Your task to perform on an android device: When is my next appointment? Image 0: 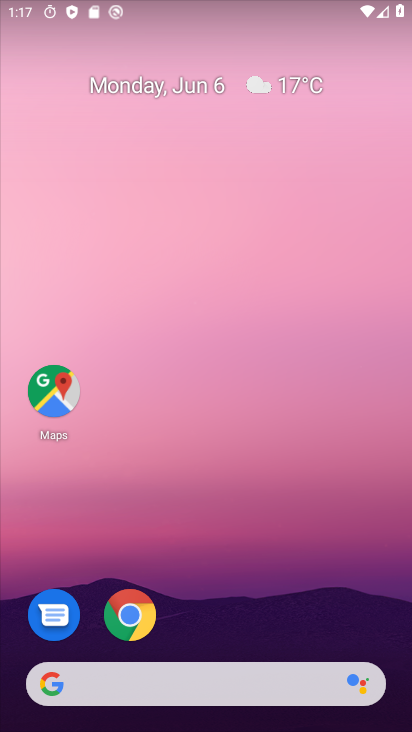
Step 0: click (203, 149)
Your task to perform on an android device: When is my next appointment? Image 1: 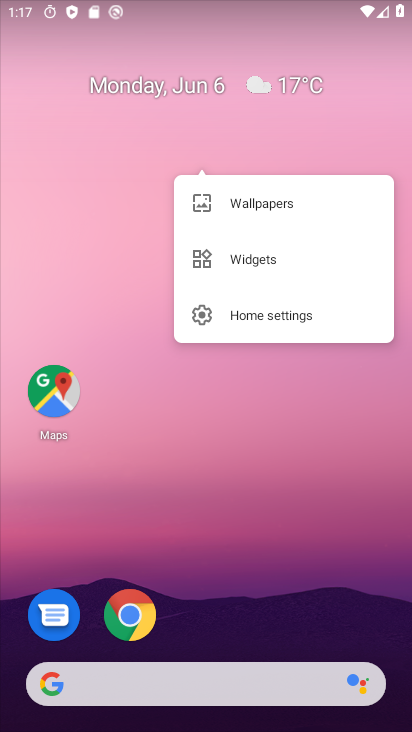
Step 1: drag from (199, 634) to (237, 92)
Your task to perform on an android device: When is my next appointment? Image 2: 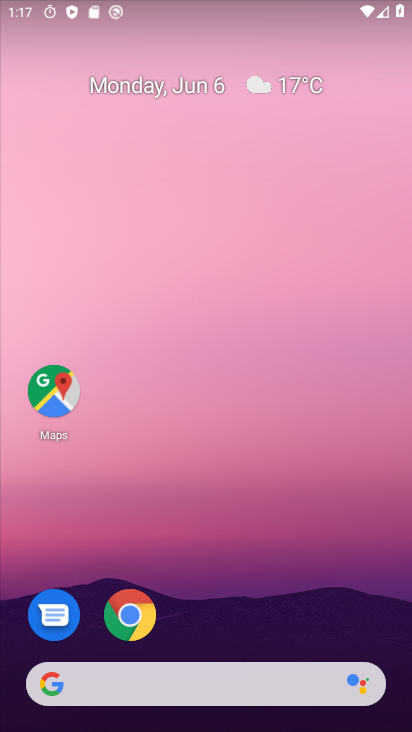
Step 2: drag from (204, 609) to (57, 8)
Your task to perform on an android device: When is my next appointment? Image 3: 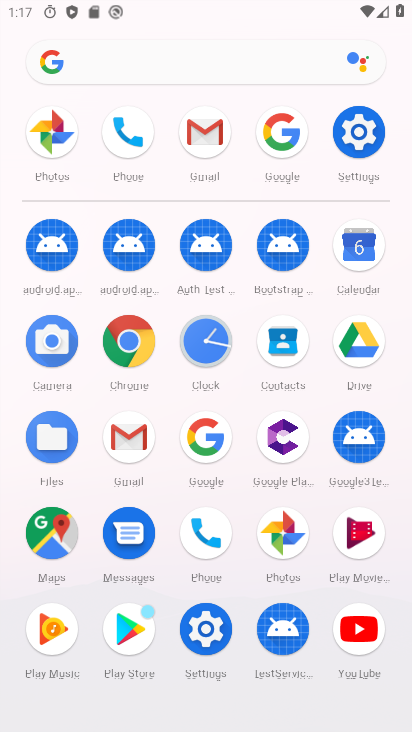
Step 3: click (351, 242)
Your task to perform on an android device: When is my next appointment? Image 4: 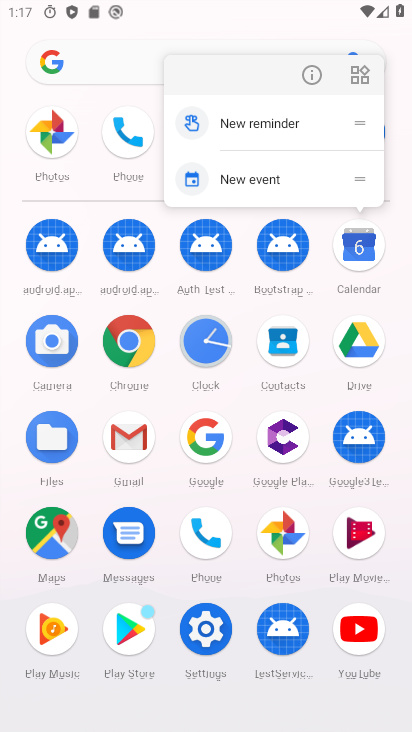
Step 4: click (314, 64)
Your task to perform on an android device: When is my next appointment? Image 5: 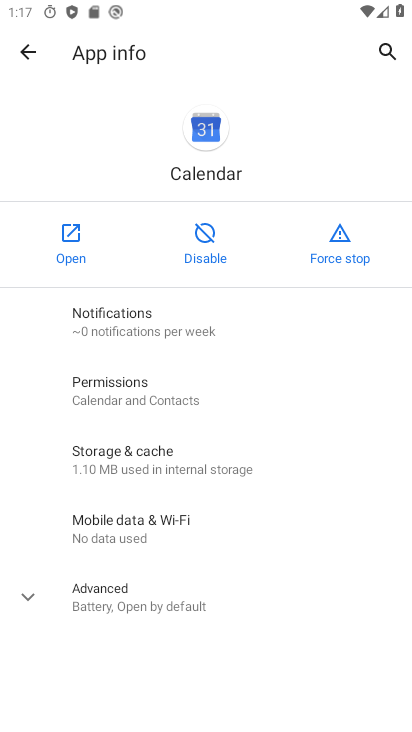
Step 5: click (70, 234)
Your task to perform on an android device: When is my next appointment? Image 6: 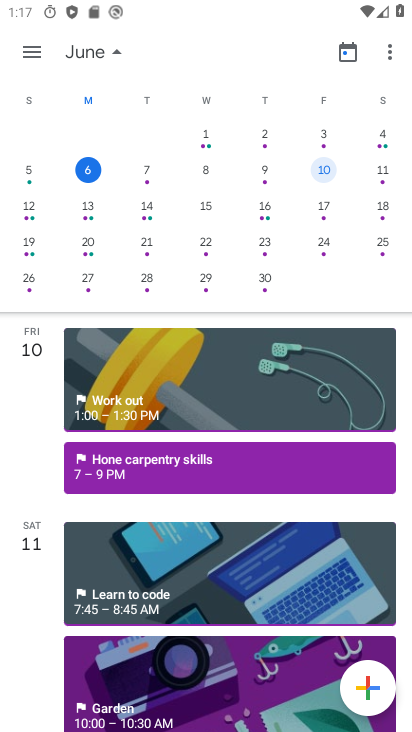
Step 6: click (87, 167)
Your task to perform on an android device: When is my next appointment? Image 7: 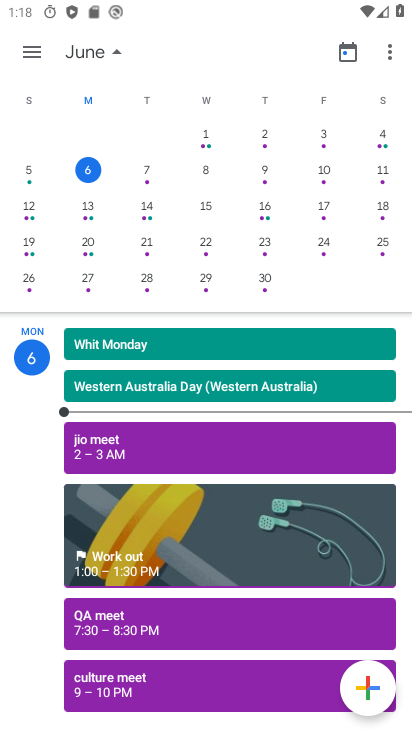
Step 7: drag from (186, 415) to (267, 203)
Your task to perform on an android device: When is my next appointment? Image 8: 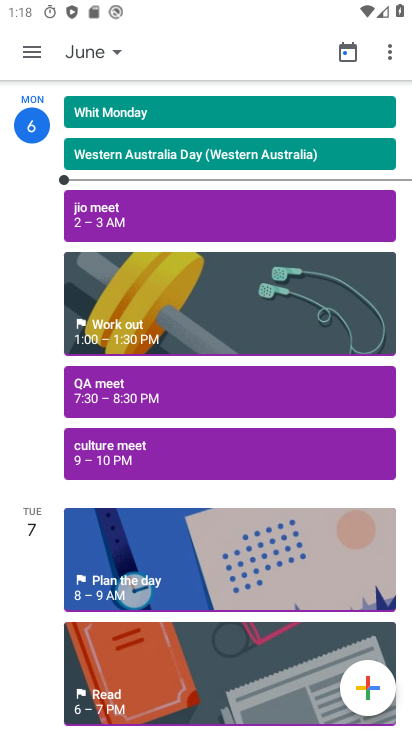
Step 8: click (142, 393)
Your task to perform on an android device: When is my next appointment? Image 9: 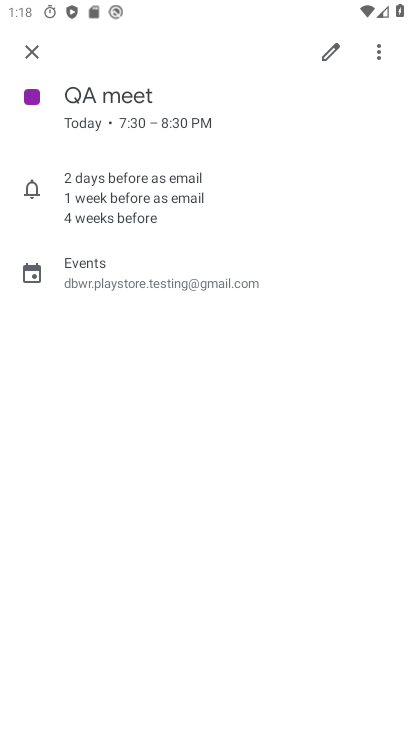
Step 9: drag from (259, 541) to (272, 276)
Your task to perform on an android device: When is my next appointment? Image 10: 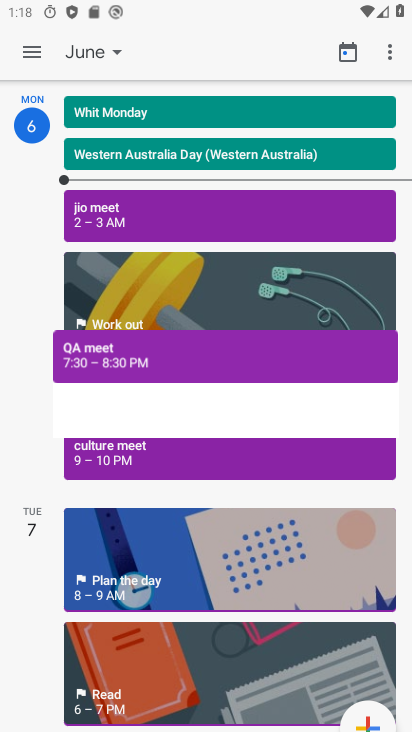
Step 10: click (26, 52)
Your task to perform on an android device: When is my next appointment? Image 11: 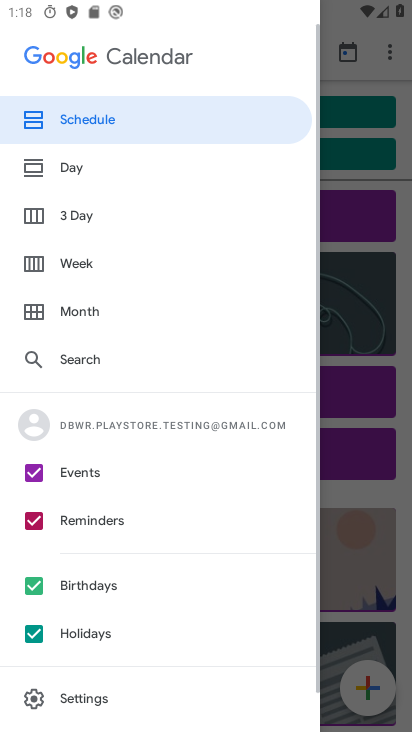
Step 11: task complete